Your task to perform on an android device: turn on wifi Image 0: 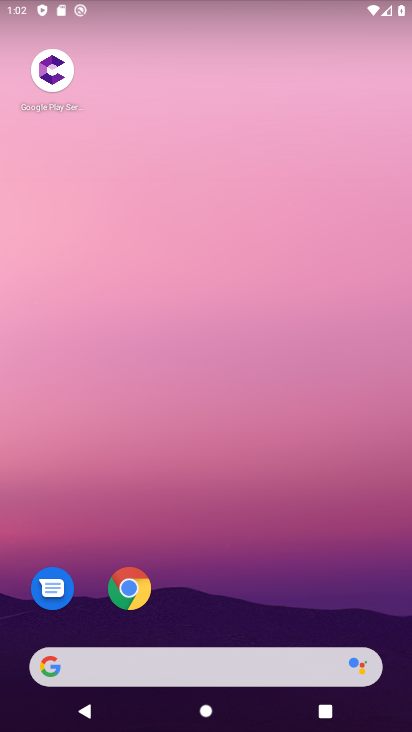
Step 0: click (82, 5)
Your task to perform on an android device: turn on wifi Image 1: 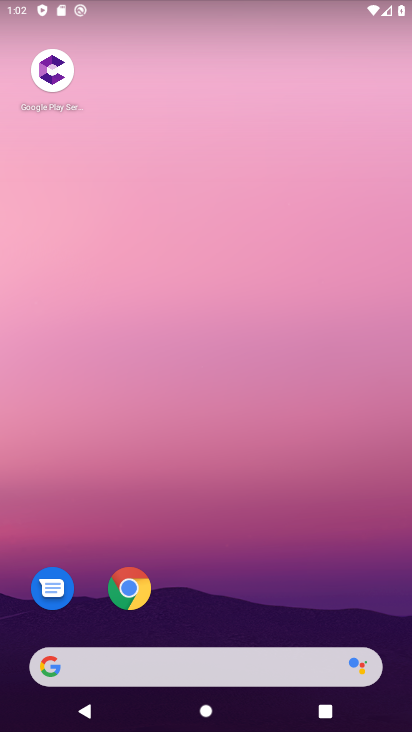
Step 1: task complete